Your task to perform on an android device: move an email to a new category in the gmail app Image 0: 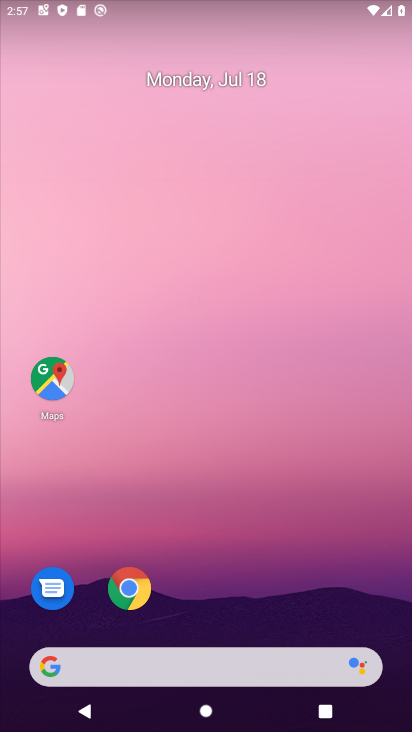
Step 0: drag from (256, 609) to (212, 118)
Your task to perform on an android device: move an email to a new category in the gmail app Image 1: 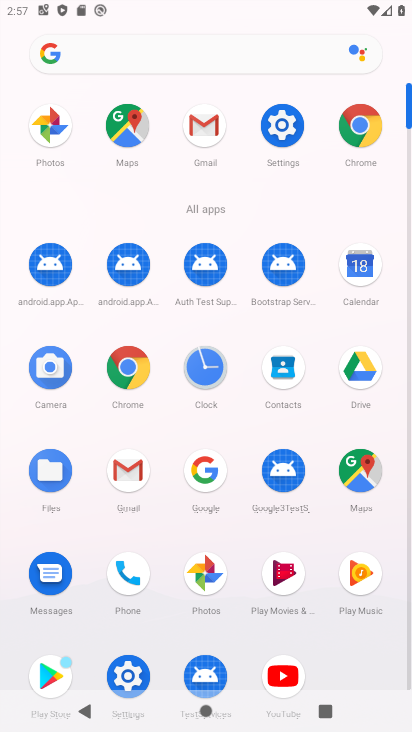
Step 1: click (208, 143)
Your task to perform on an android device: move an email to a new category in the gmail app Image 2: 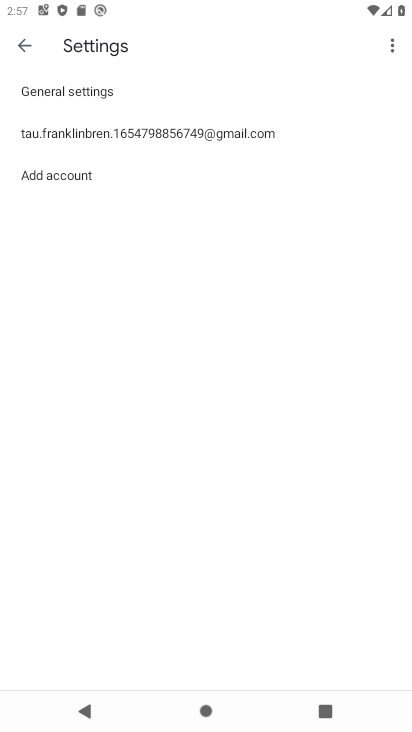
Step 2: click (23, 54)
Your task to perform on an android device: move an email to a new category in the gmail app Image 3: 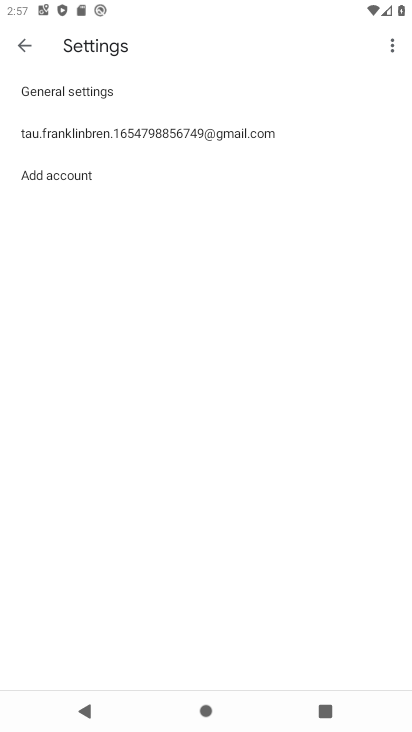
Step 3: task complete